Your task to perform on an android device: Go to accessibility settings Image 0: 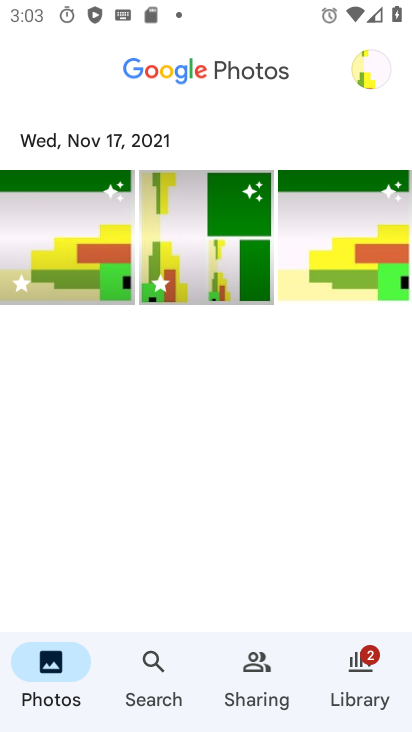
Step 0: press home button
Your task to perform on an android device: Go to accessibility settings Image 1: 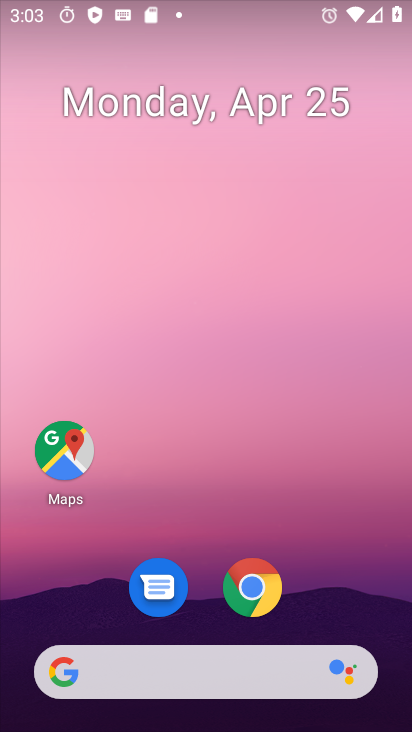
Step 1: drag from (346, 541) to (300, 155)
Your task to perform on an android device: Go to accessibility settings Image 2: 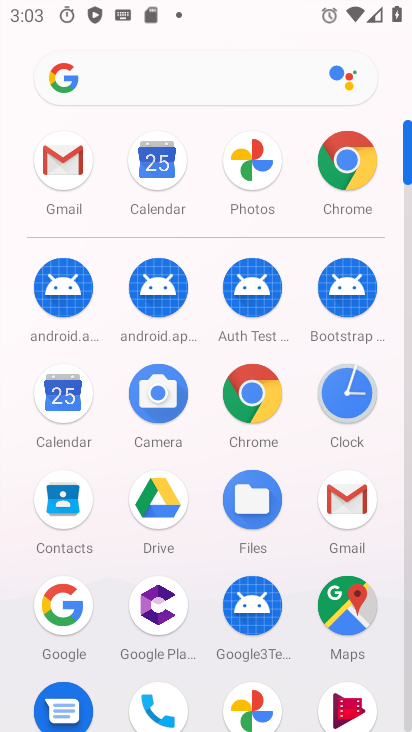
Step 2: drag from (294, 546) to (307, 149)
Your task to perform on an android device: Go to accessibility settings Image 3: 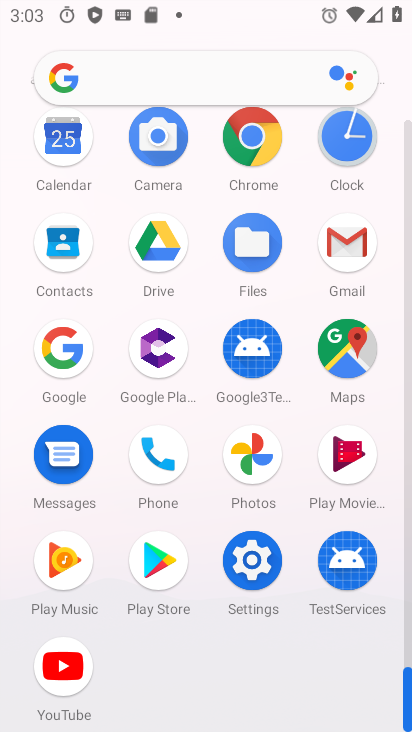
Step 3: click (256, 556)
Your task to perform on an android device: Go to accessibility settings Image 4: 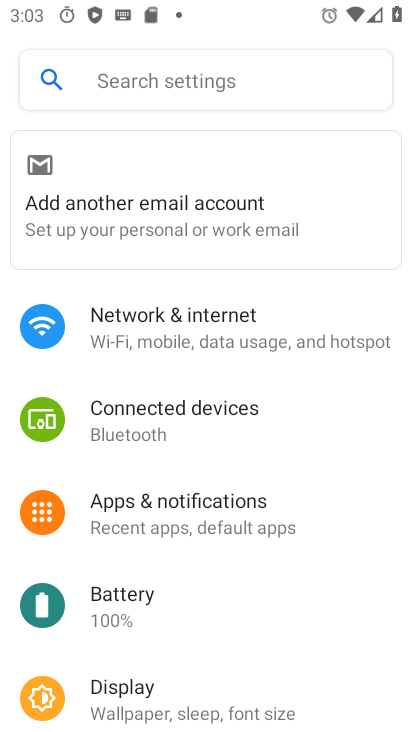
Step 4: drag from (223, 667) to (244, 169)
Your task to perform on an android device: Go to accessibility settings Image 5: 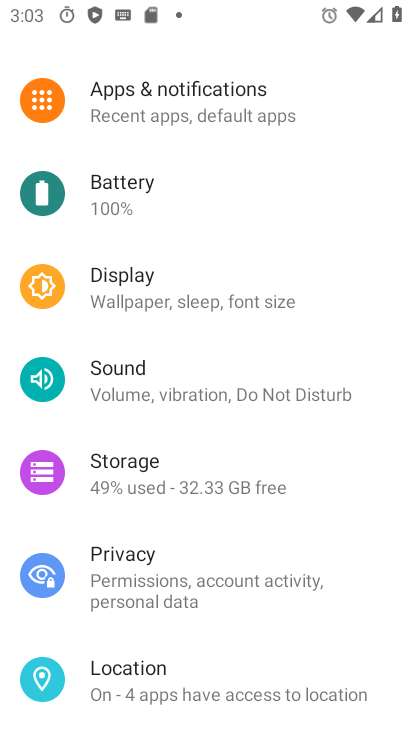
Step 5: drag from (232, 617) to (271, 222)
Your task to perform on an android device: Go to accessibility settings Image 6: 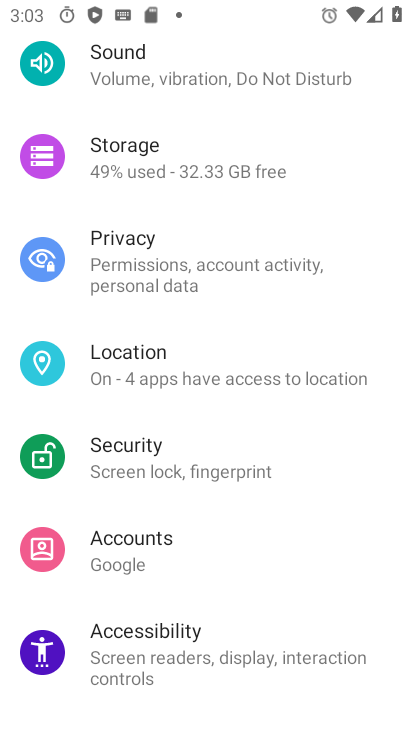
Step 6: drag from (239, 600) to (268, 188)
Your task to perform on an android device: Go to accessibility settings Image 7: 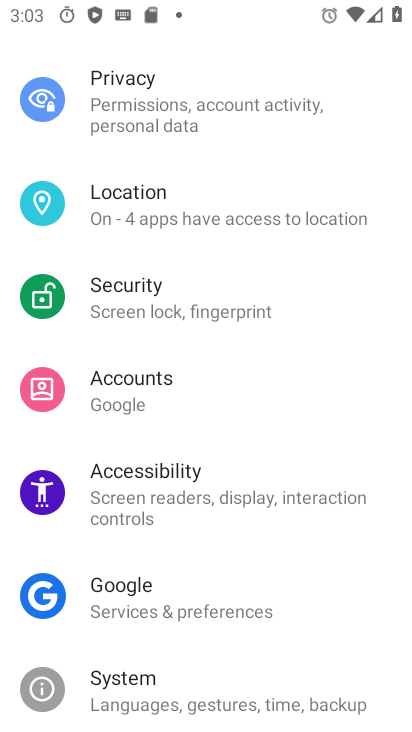
Step 7: click (135, 462)
Your task to perform on an android device: Go to accessibility settings Image 8: 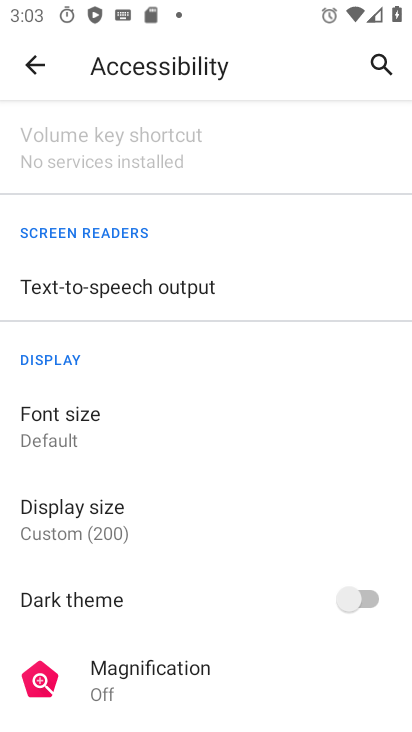
Step 8: task complete